Your task to perform on an android device: turn on sleep mode Image 0: 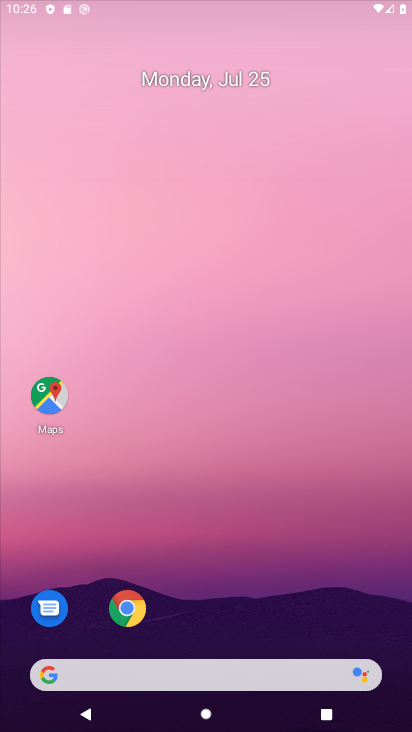
Step 0: drag from (252, 692) to (233, 232)
Your task to perform on an android device: turn on sleep mode Image 1: 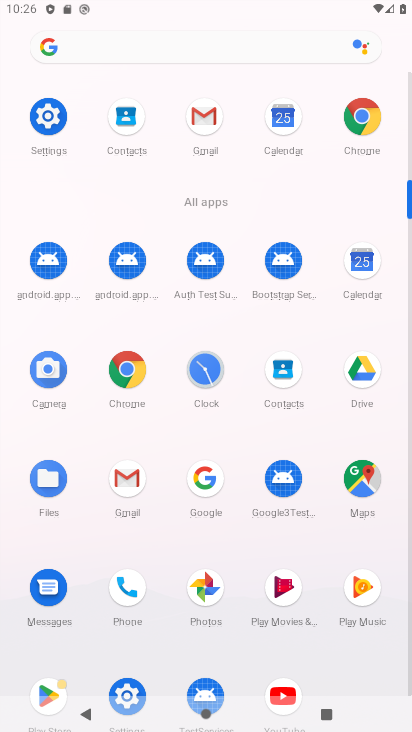
Step 1: click (49, 127)
Your task to perform on an android device: turn on sleep mode Image 2: 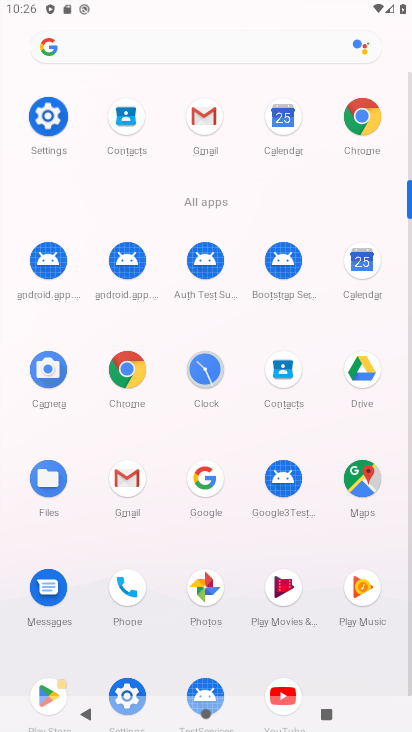
Step 2: click (46, 123)
Your task to perform on an android device: turn on sleep mode Image 3: 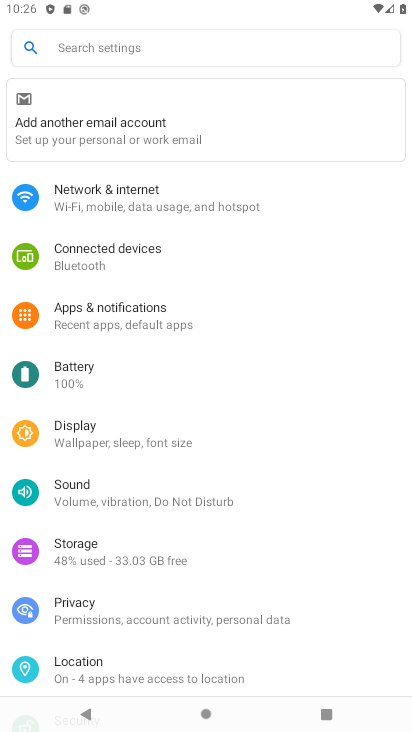
Step 3: click (54, 424)
Your task to perform on an android device: turn on sleep mode Image 4: 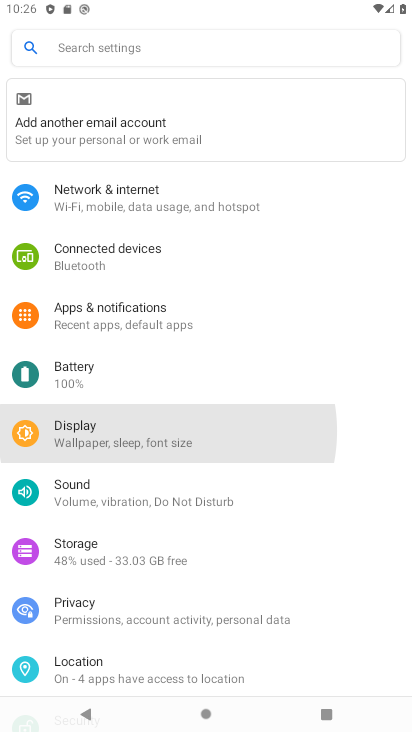
Step 4: click (62, 432)
Your task to perform on an android device: turn on sleep mode Image 5: 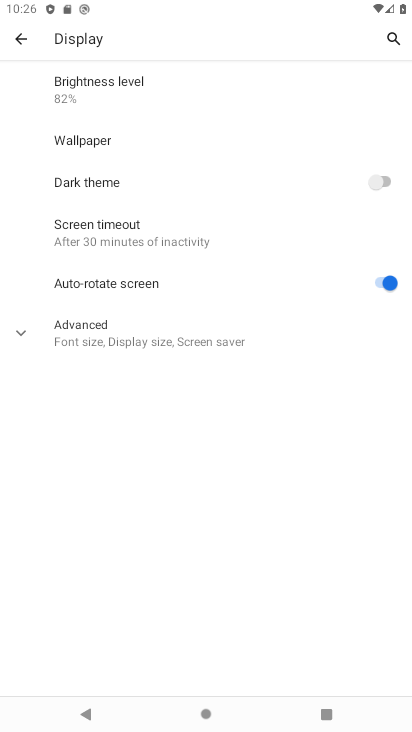
Step 5: click (107, 238)
Your task to perform on an android device: turn on sleep mode Image 6: 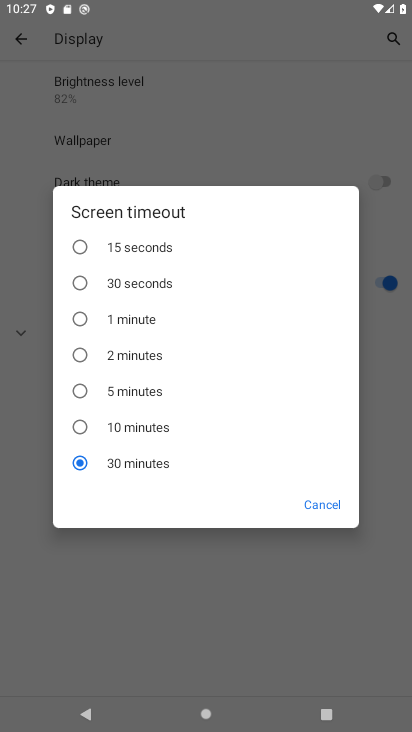
Step 6: task complete